Your task to perform on an android device: Search for Mexican restaurants on Maps Image 0: 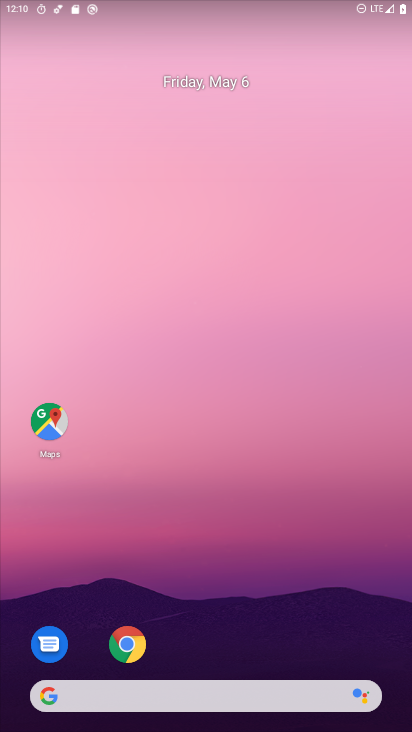
Step 0: drag from (377, 610) to (373, 0)
Your task to perform on an android device: Search for Mexican restaurants on Maps Image 1: 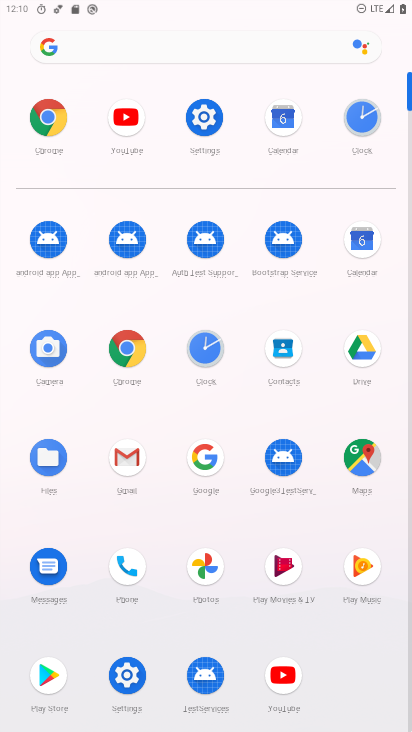
Step 1: click (348, 459)
Your task to perform on an android device: Search for Mexican restaurants on Maps Image 2: 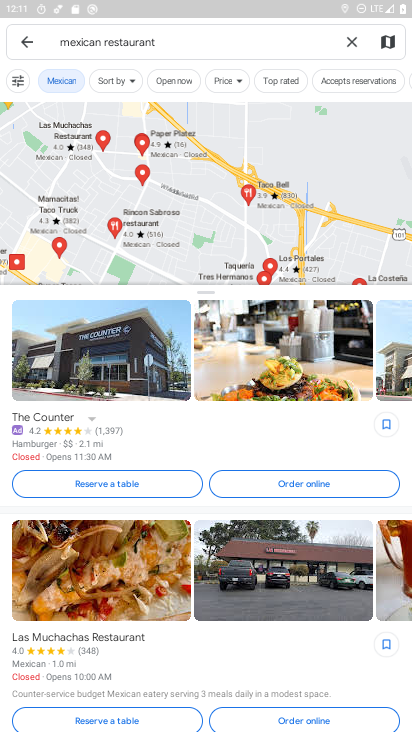
Step 2: task complete